Your task to perform on an android device: Open the calendar app, open the side menu, and click the "Day" option Image 0: 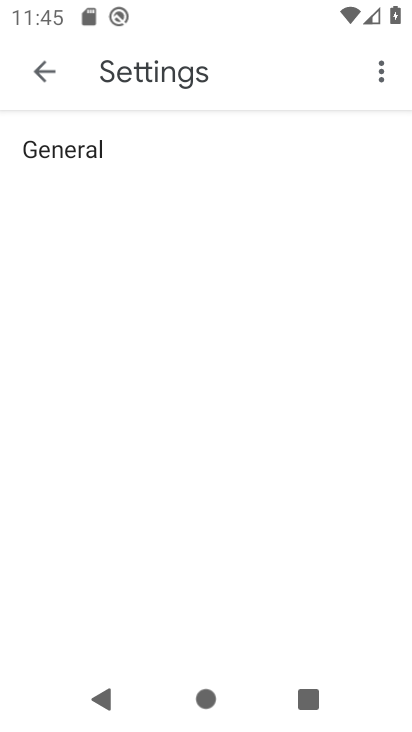
Step 0: press home button
Your task to perform on an android device: Open the calendar app, open the side menu, and click the "Day" option Image 1: 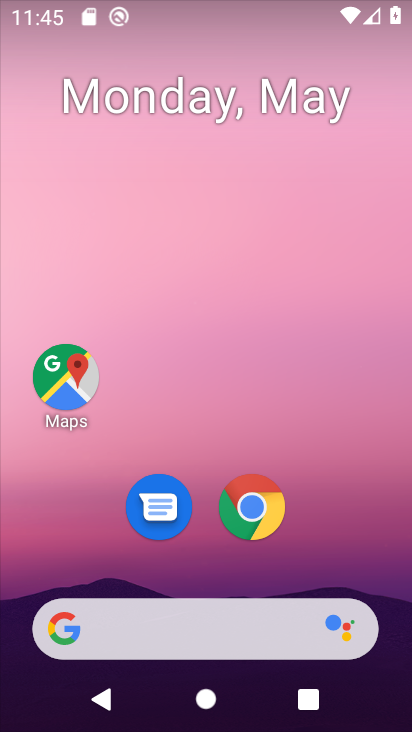
Step 1: drag from (168, 405) to (175, 233)
Your task to perform on an android device: Open the calendar app, open the side menu, and click the "Day" option Image 2: 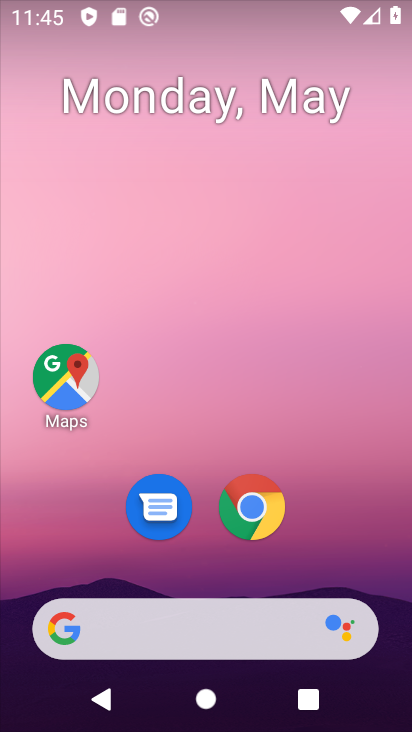
Step 2: drag from (224, 575) to (219, 114)
Your task to perform on an android device: Open the calendar app, open the side menu, and click the "Day" option Image 3: 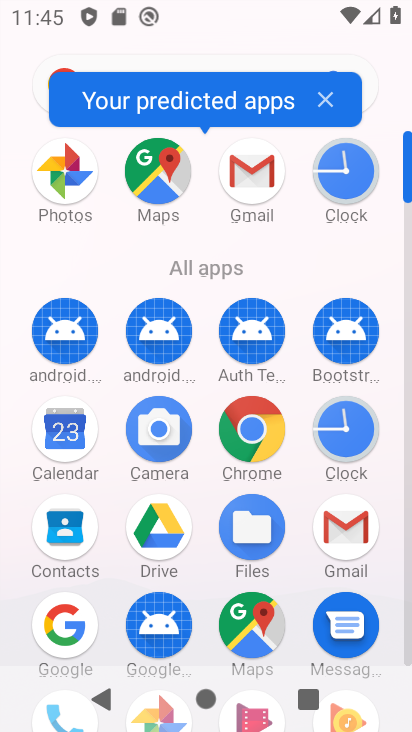
Step 3: click (69, 440)
Your task to perform on an android device: Open the calendar app, open the side menu, and click the "Day" option Image 4: 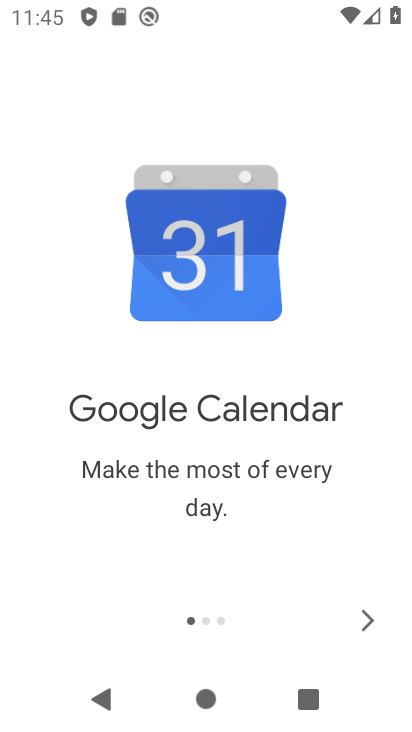
Step 4: click (358, 629)
Your task to perform on an android device: Open the calendar app, open the side menu, and click the "Day" option Image 5: 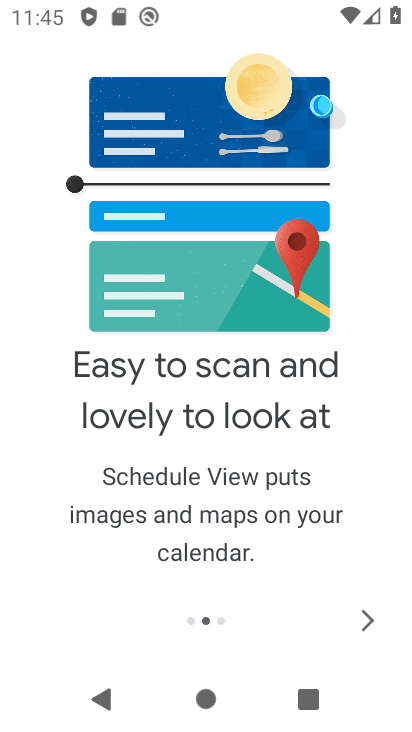
Step 5: click (358, 629)
Your task to perform on an android device: Open the calendar app, open the side menu, and click the "Day" option Image 6: 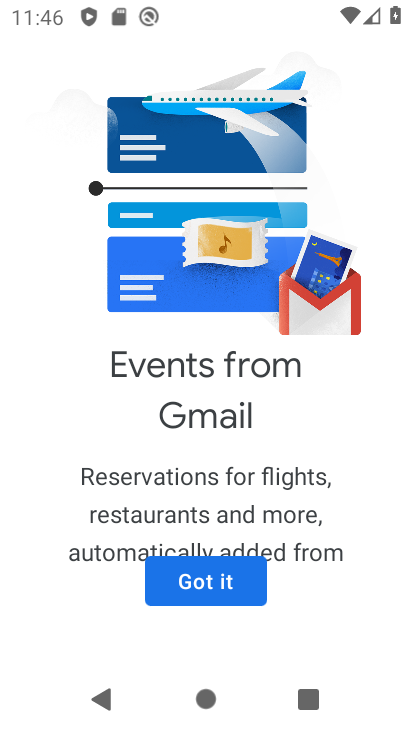
Step 6: click (200, 576)
Your task to perform on an android device: Open the calendar app, open the side menu, and click the "Day" option Image 7: 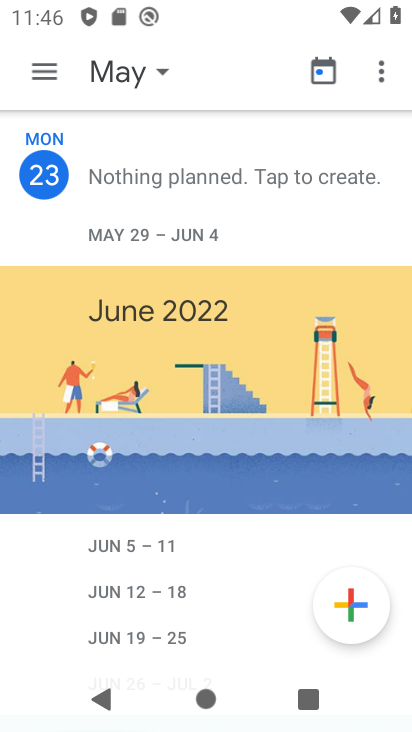
Step 7: click (50, 79)
Your task to perform on an android device: Open the calendar app, open the side menu, and click the "Day" option Image 8: 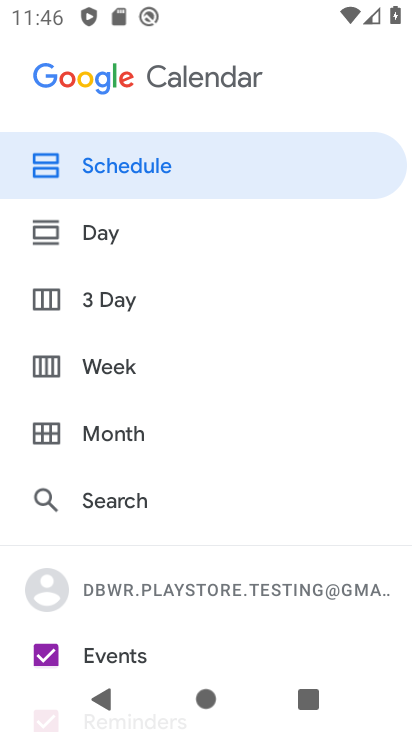
Step 8: click (88, 246)
Your task to perform on an android device: Open the calendar app, open the side menu, and click the "Day" option Image 9: 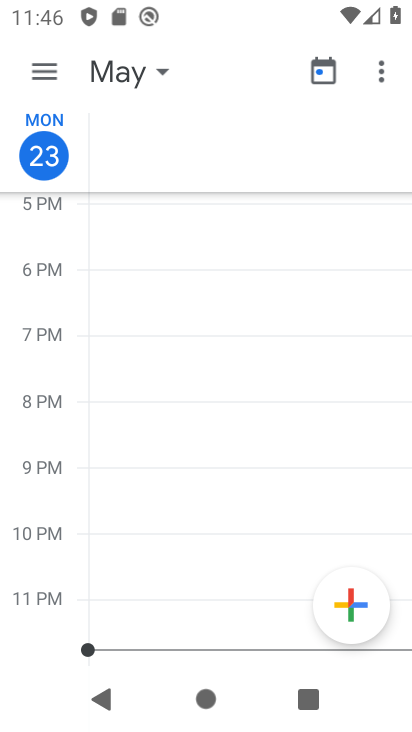
Step 9: task complete